Your task to perform on an android device: Check the settings for the Amazon Prime Video app Image 0: 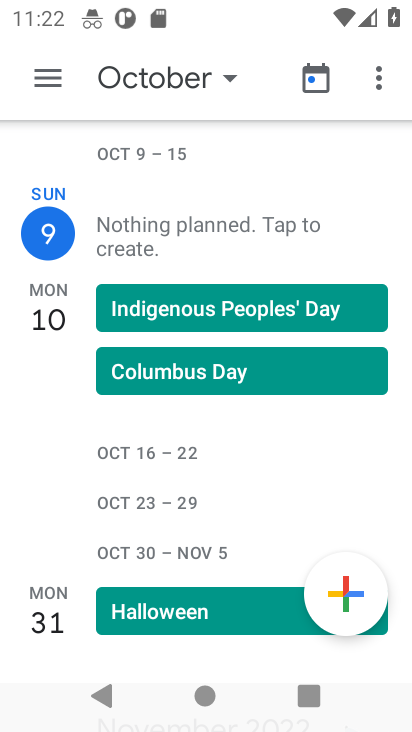
Step 0: press home button
Your task to perform on an android device: Check the settings for the Amazon Prime Video app Image 1: 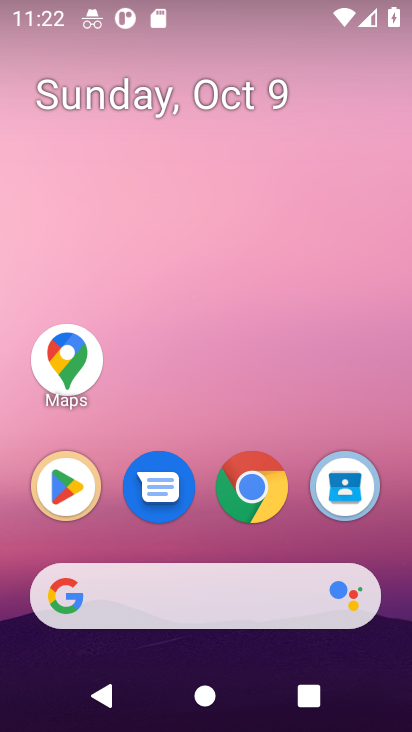
Step 1: drag from (255, 622) to (255, 316)
Your task to perform on an android device: Check the settings for the Amazon Prime Video app Image 2: 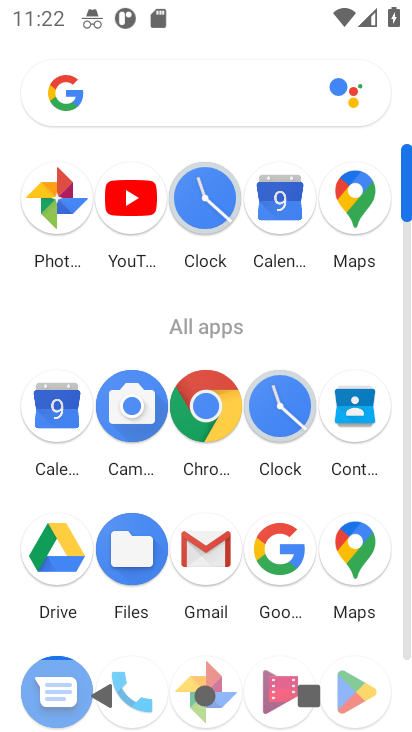
Step 2: drag from (306, 587) to (306, 161)
Your task to perform on an android device: Check the settings for the Amazon Prime Video app Image 3: 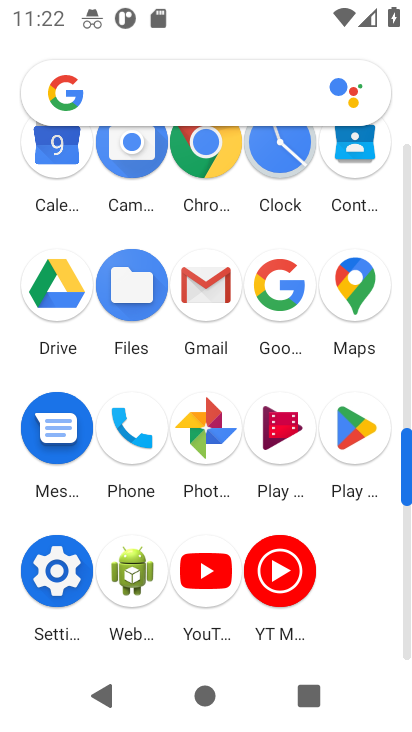
Step 3: click (73, 564)
Your task to perform on an android device: Check the settings for the Amazon Prime Video app Image 4: 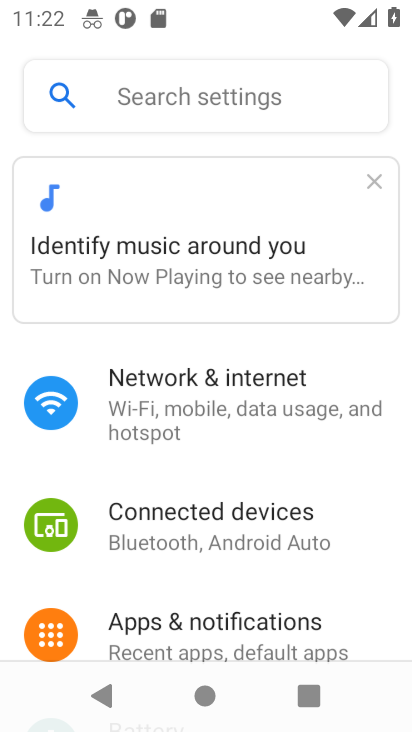
Step 4: drag from (252, 620) to (270, 311)
Your task to perform on an android device: Check the settings for the Amazon Prime Video app Image 5: 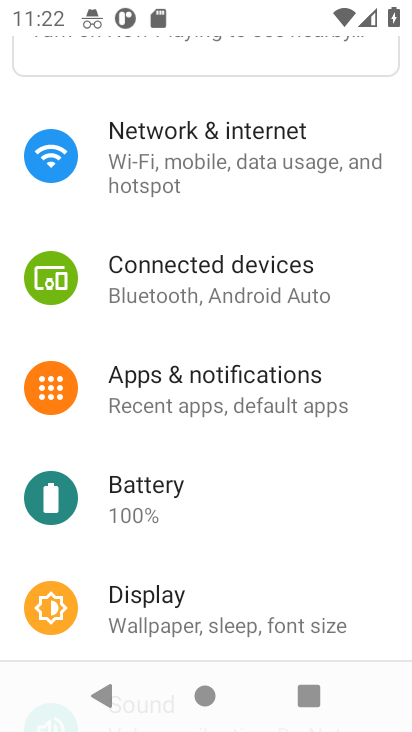
Step 5: click (258, 381)
Your task to perform on an android device: Check the settings for the Amazon Prime Video app Image 6: 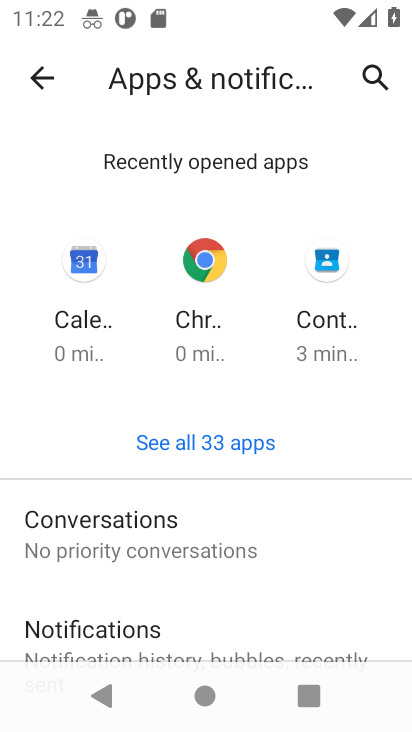
Step 6: click (230, 452)
Your task to perform on an android device: Check the settings for the Amazon Prime Video app Image 7: 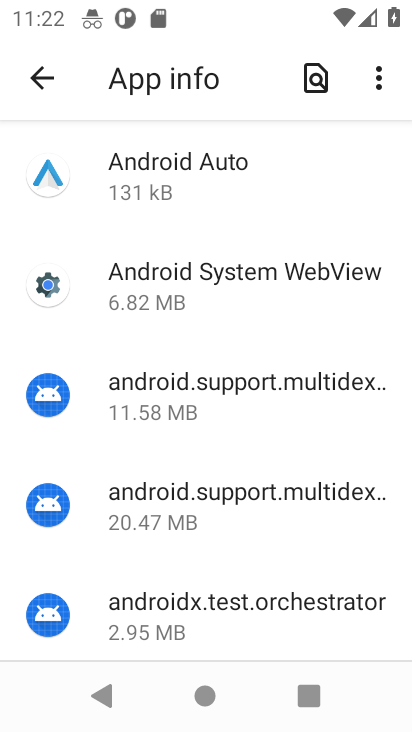
Step 7: task complete